Your task to perform on an android device: Do I have any events tomorrow? Image 0: 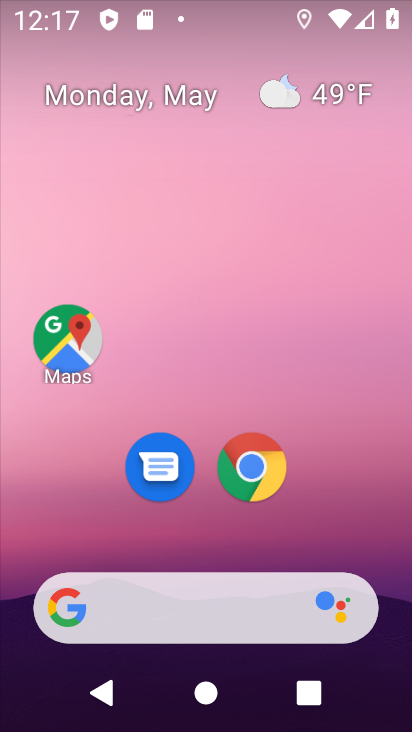
Step 0: drag from (357, 542) to (361, 52)
Your task to perform on an android device: Do I have any events tomorrow? Image 1: 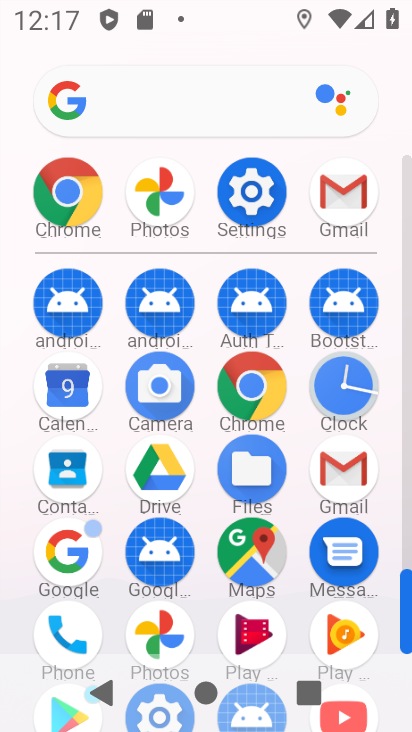
Step 1: click (61, 385)
Your task to perform on an android device: Do I have any events tomorrow? Image 2: 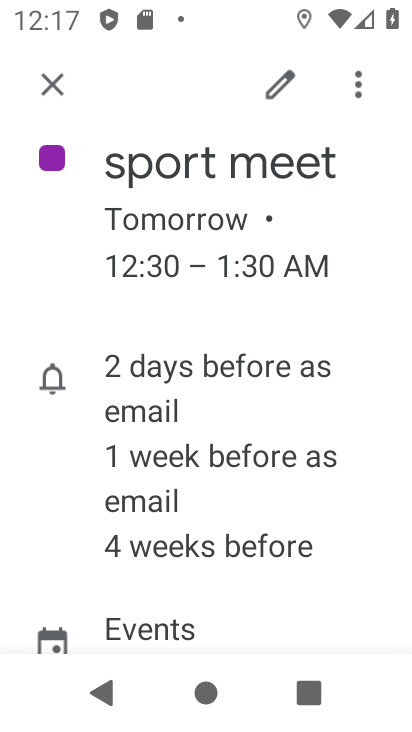
Step 2: click (42, 85)
Your task to perform on an android device: Do I have any events tomorrow? Image 3: 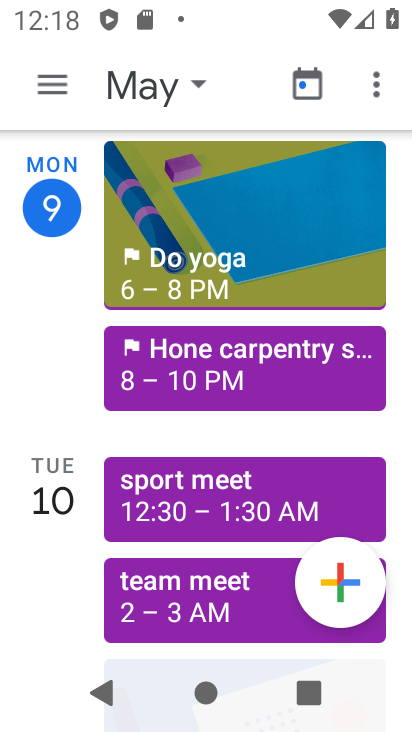
Step 3: drag from (58, 576) to (220, 247)
Your task to perform on an android device: Do I have any events tomorrow? Image 4: 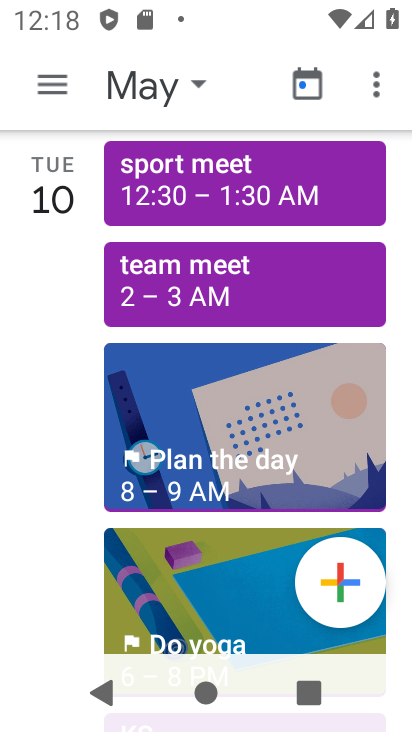
Step 4: click (178, 313)
Your task to perform on an android device: Do I have any events tomorrow? Image 5: 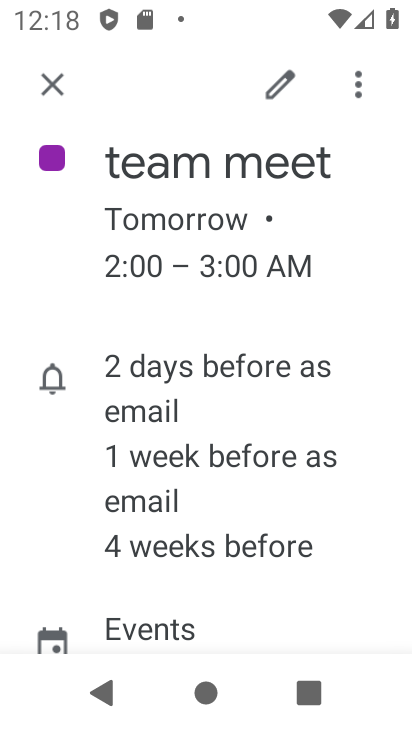
Step 5: task complete